Your task to perform on an android device: Open network settings Image 0: 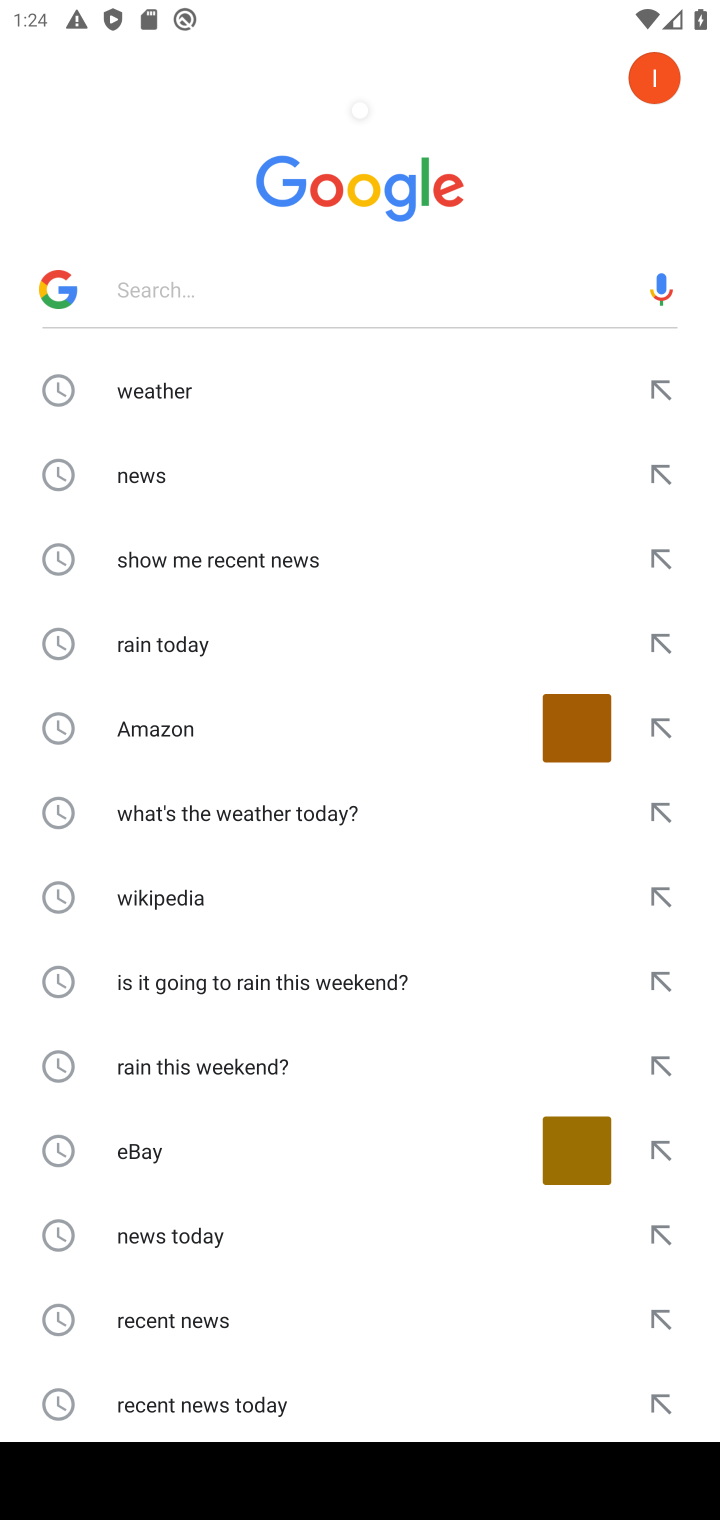
Step 0: press home button
Your task to perform on an android device: Open network settings Image 1: 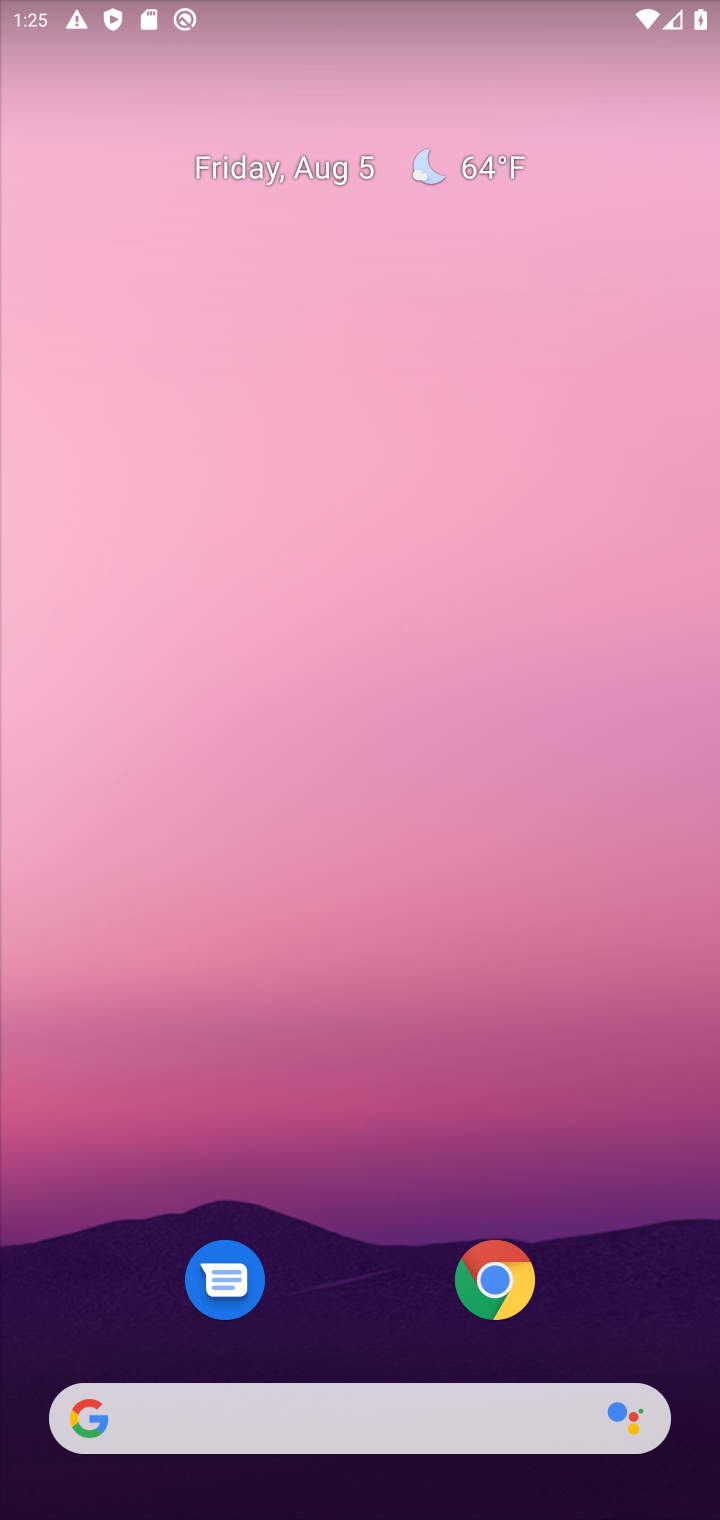
Step 1: drag from (357, 1274) to (285, 103)
Your task to perform on an android device: Open network settings Image 2: 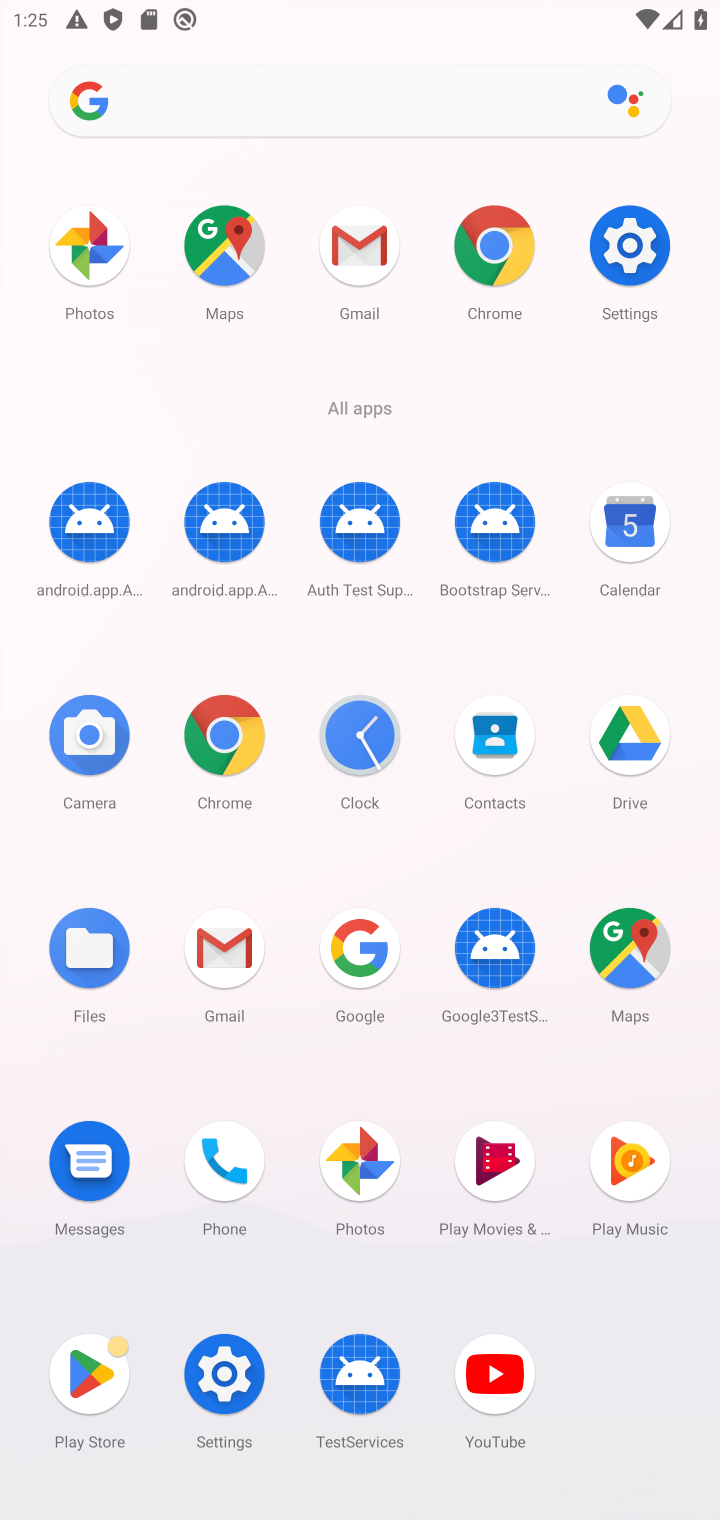
Step 2: click (626, 244)
Your task to perform on an android device: Open network settings Image 3: 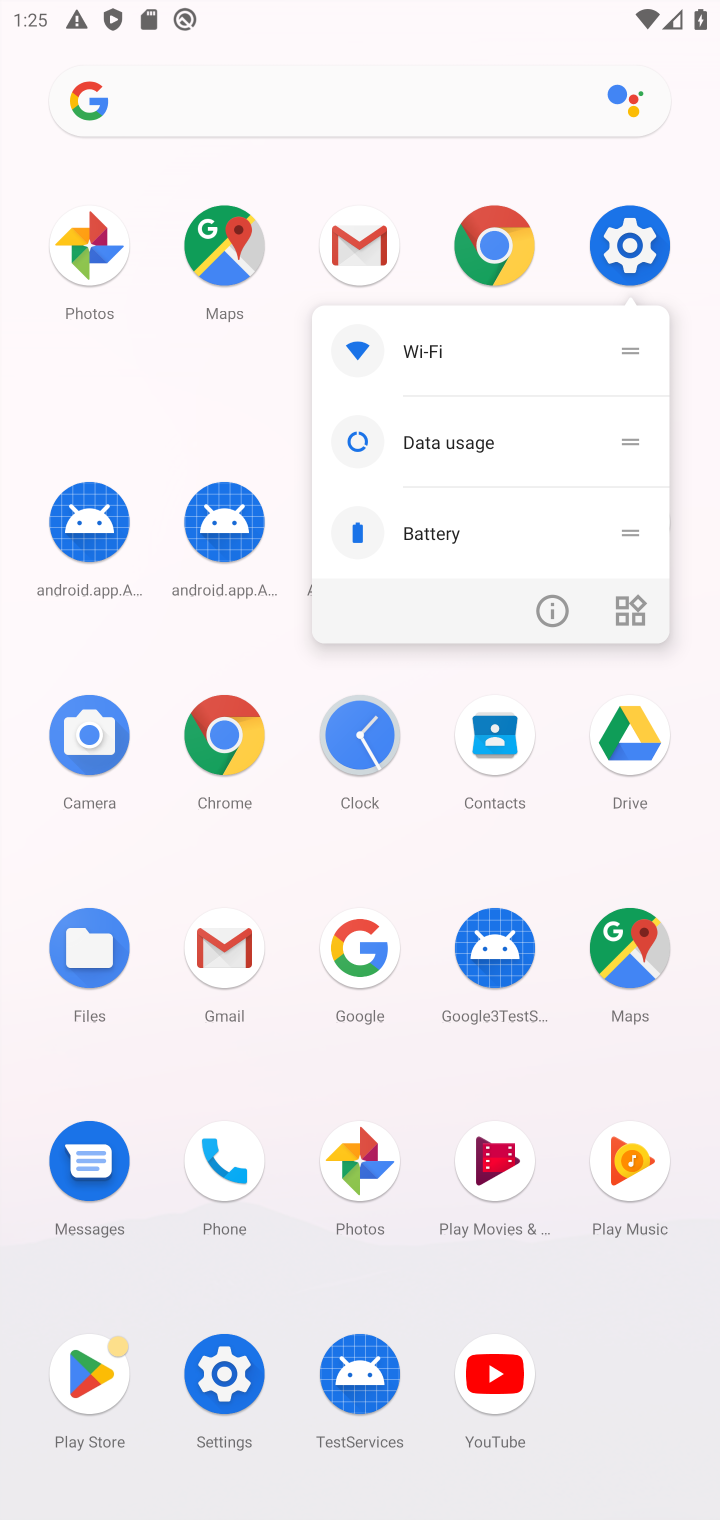
Step 3: click (637, 249)
Your task to perform on an android device: Open network settings Image 4: 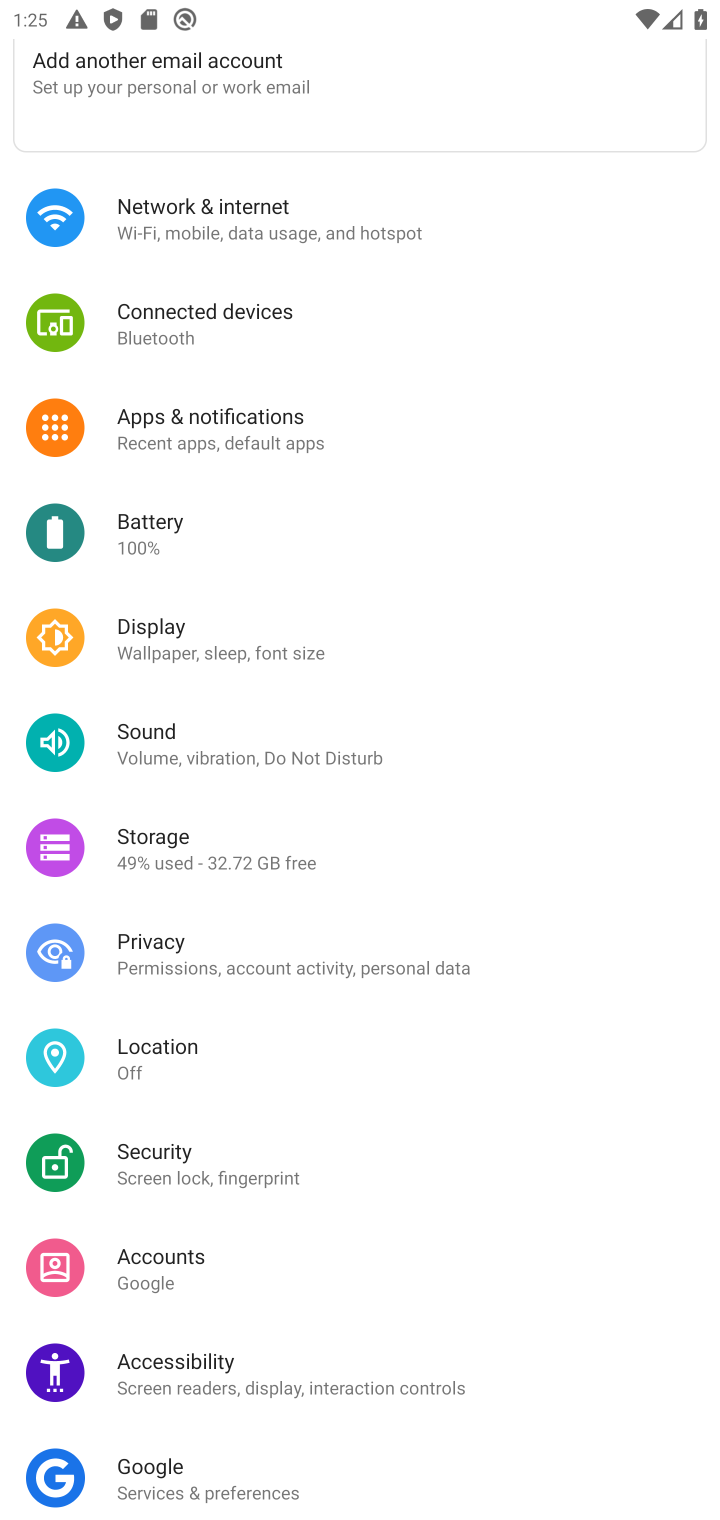
Step 4: click (298, 232)
Your task to perform on an android device: Open network settings Image 5: 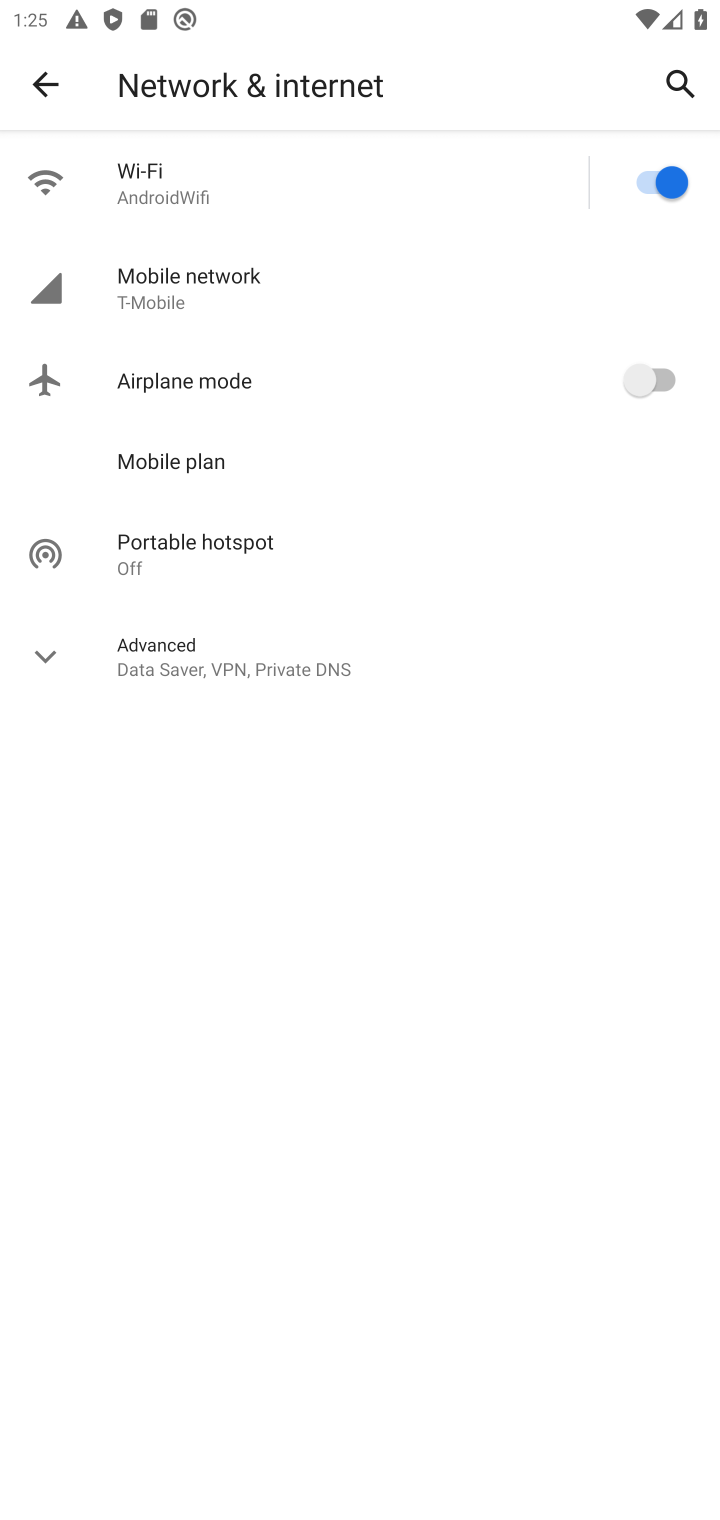
Step 5: task complete